Your task to perform on an android device: Open the calendar and show me this week's events? Image 0: 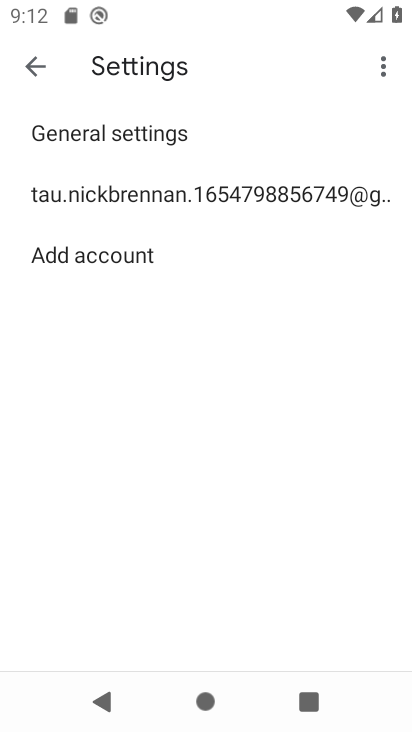
Step 0: press home button
Your task to perform on an android device: Open the calendar and show me this week's events? Image 1: 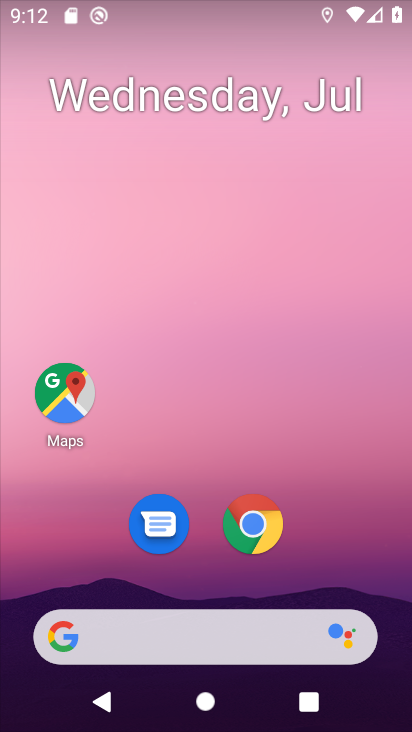
Step 1: drag from (324, 532) to (337, 15)
Your task to perform on an android device: Open the calendar and show me this week's events? Image 2: 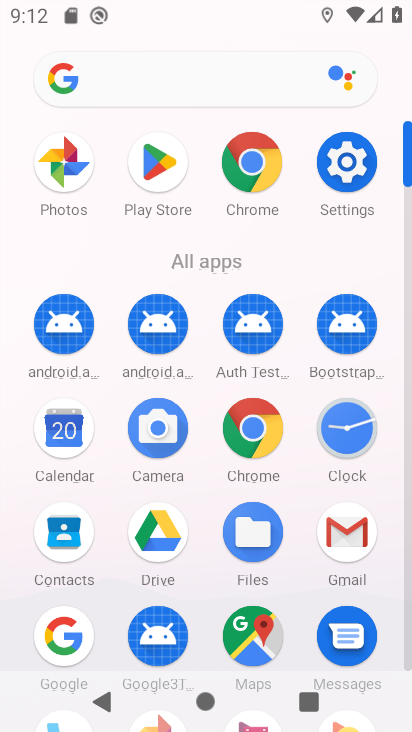
Step 2: click (68, 433)
Your task to perform on an android device: Open the calendar and show me this week's events? Image 3: 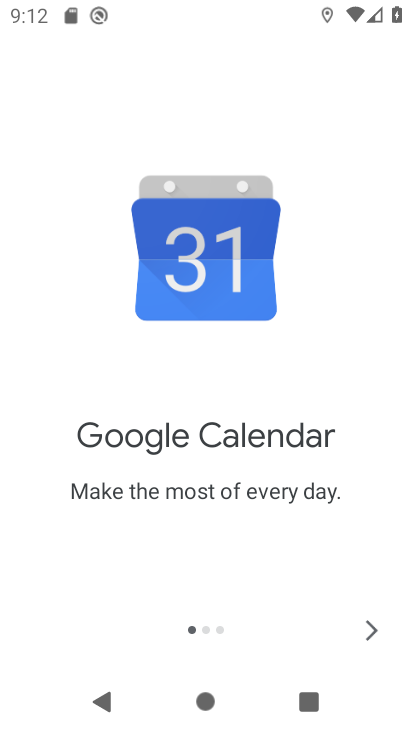
Step 3: click (367, 631)
Your task to perform on an android device: Open the calendar and show me this week's events? Image 4: 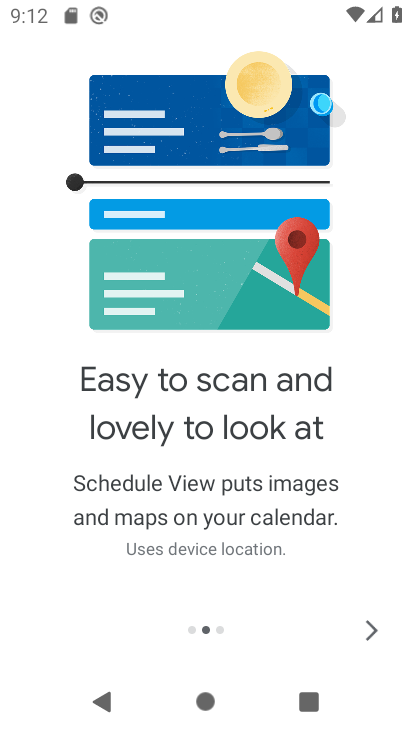
Step 4: click (367, 631)
Your task to perform on an android device: Open the calendar and show me this week's events? Image 5: 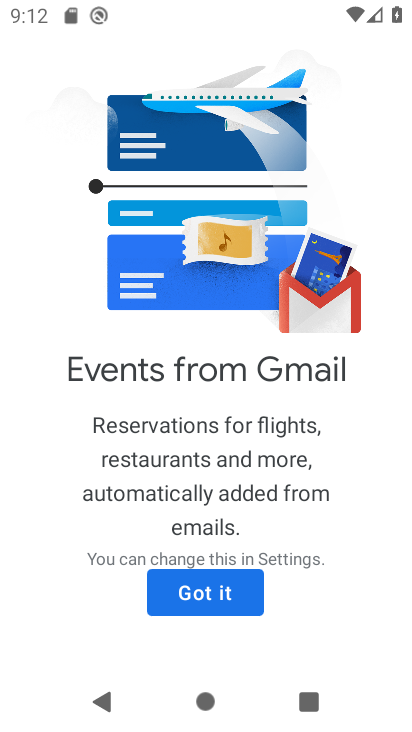
Step 5: click (256, 595)
Your task to perform on an android device: Open the calendar and show me this week's events? Image 6: 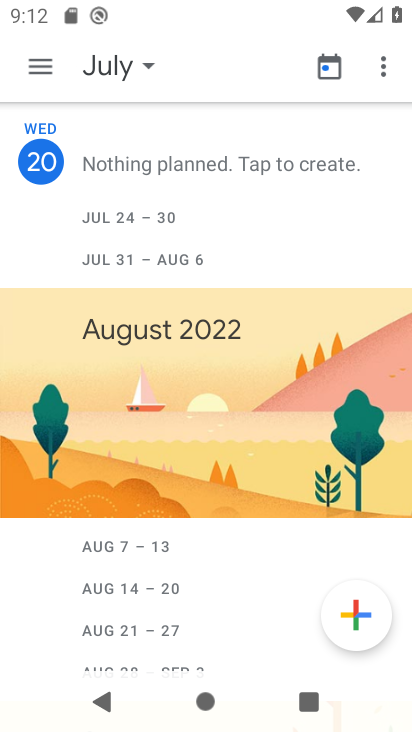
Step 6: click (39, 67)
Your task to perform on an android device: Open the calendar and show me this week's events? Image 7: 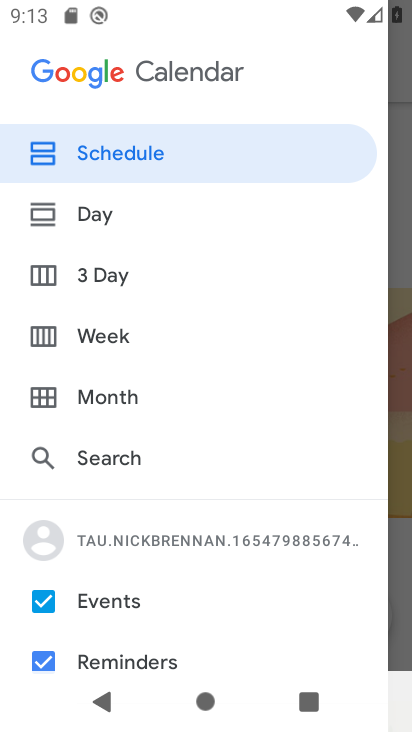
Step 7: click (49, 342)
Your task to perform on an android device: Open the calendar and show me this week's events? Image 8: 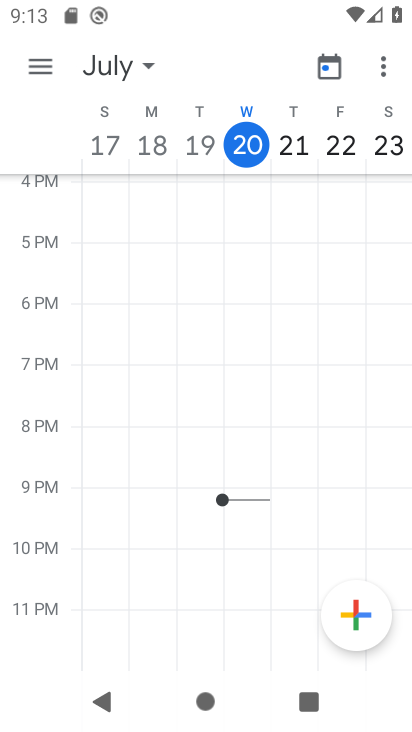
Step 8: task complete